Your task to perform on an android device: Open the map Image 0: 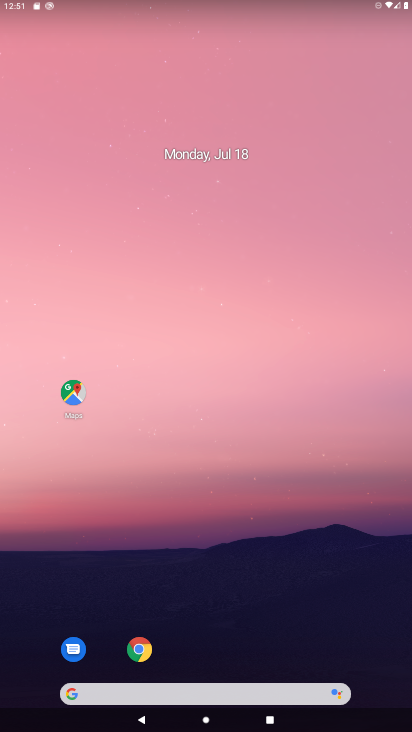
Step 0: click (83, 406)
Your task to perform on an android device: Open the map Image 1: 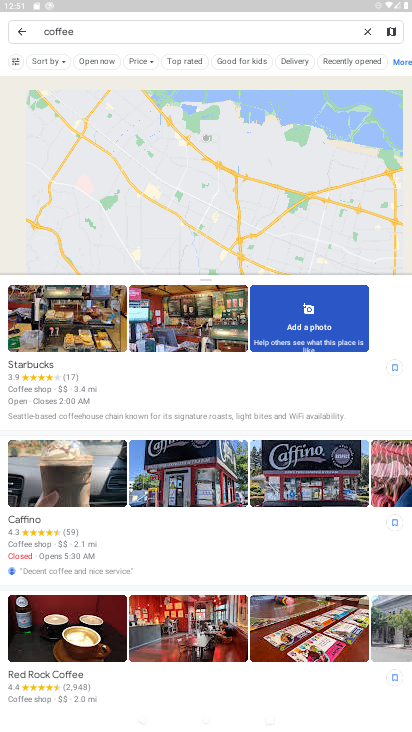
Step 1: click (23, 25)
Your task to perform on an android device: Open the map Image 2: 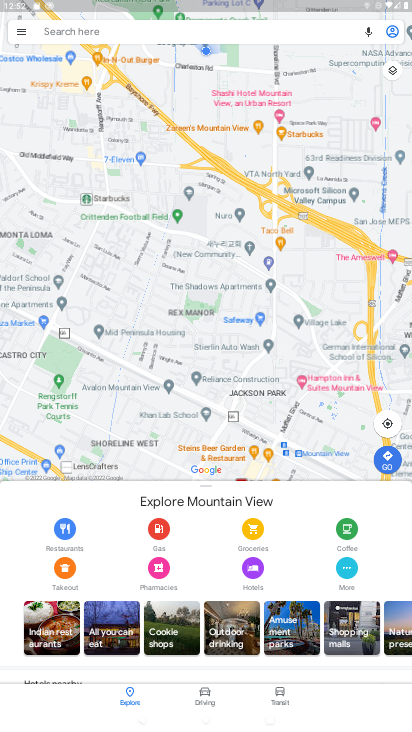
Step 2: task complete